Your task to perform on an android device: turn on improve location accuracy Image 0: 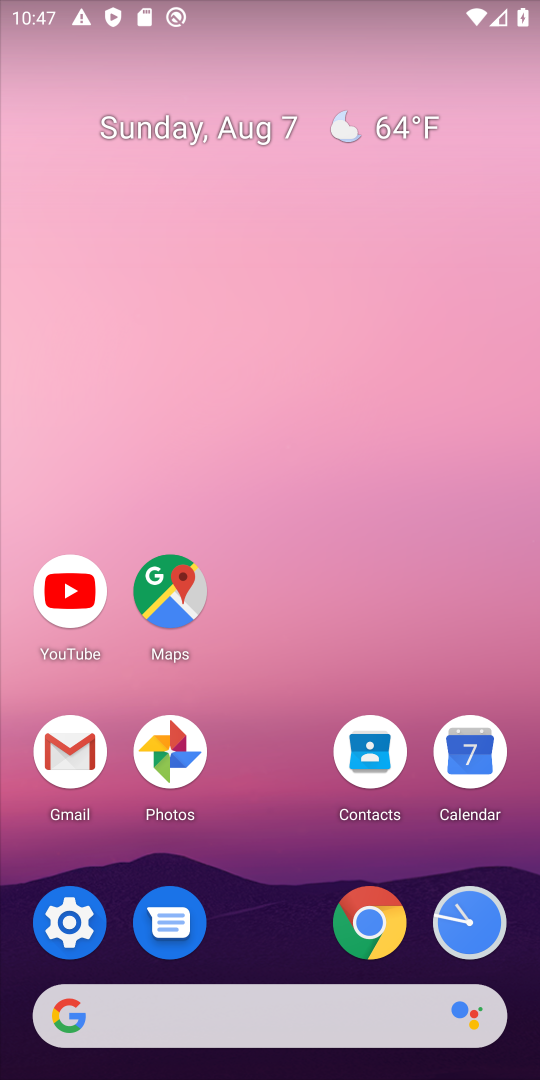
Step 0: click (65, 921)
Your task to perform on an android device: turn on improve location accuracy Image 1: 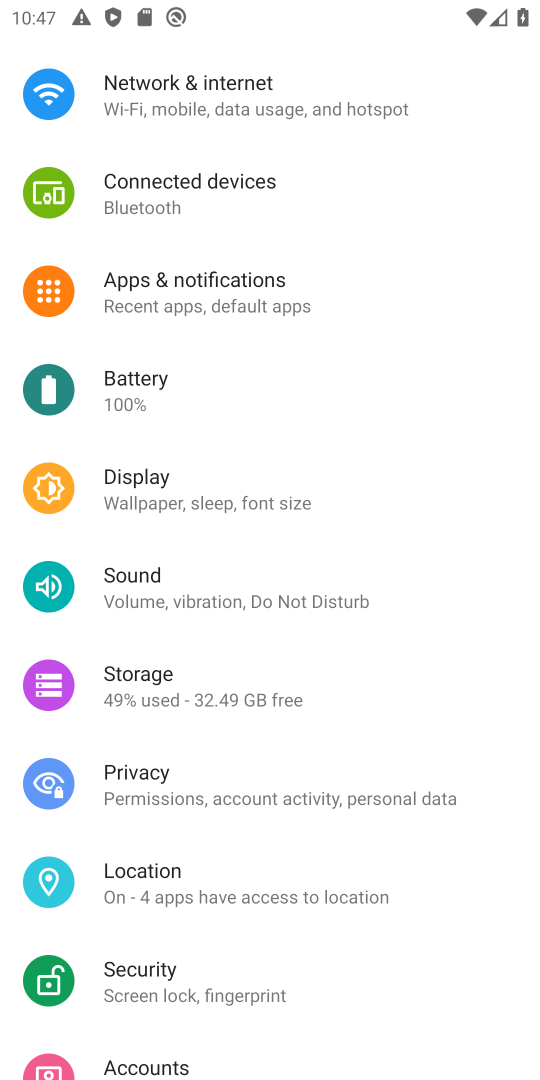
Step 1: click (141, 875)
Your task to perform on an android device: turn on improve location accuracy Image 2: 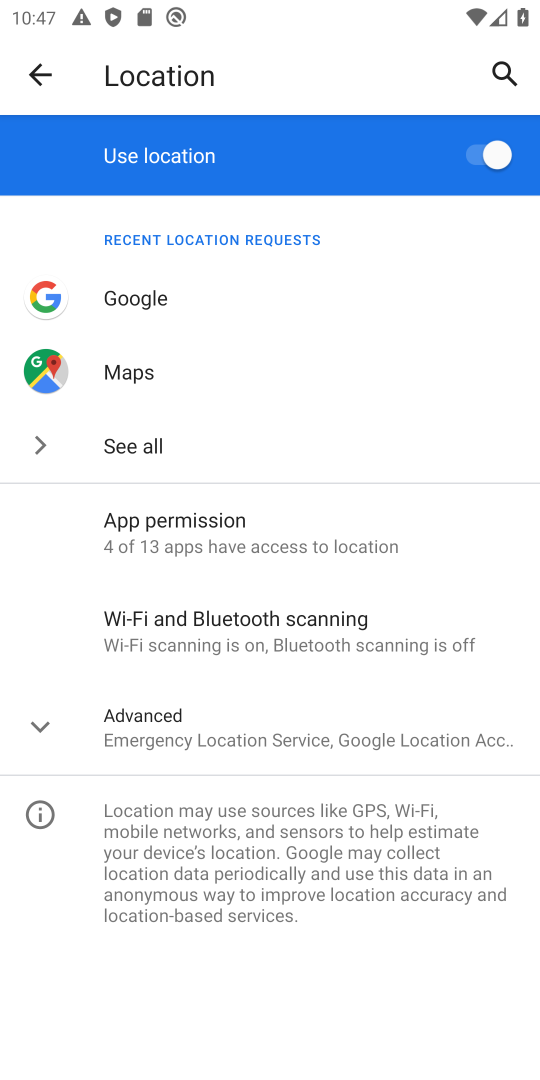
Step 2: click (44, 723)
Your task to perform on an android device: turn on improve location accuracy Image 3: 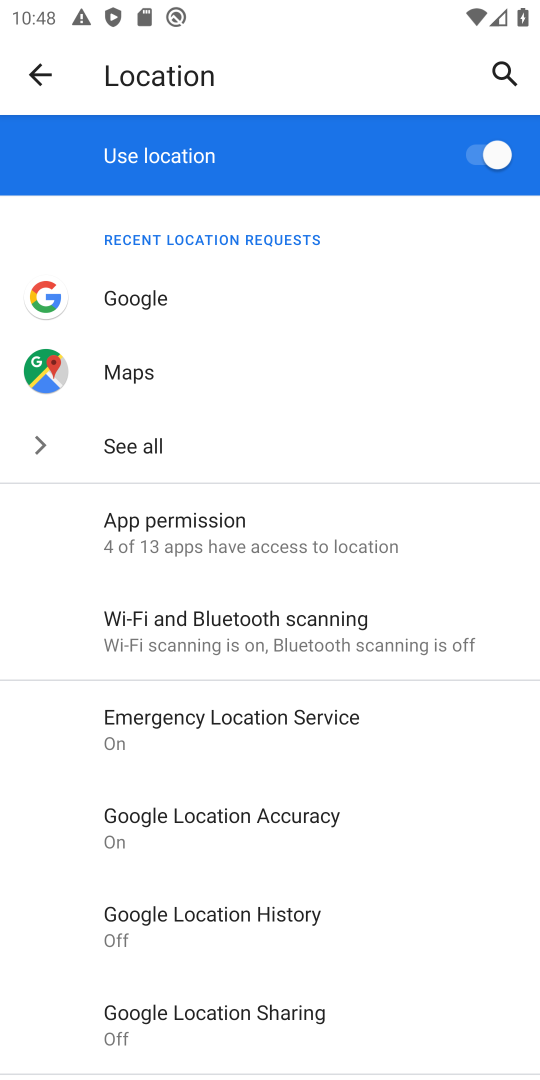
Step 3: click (241, 812)
Your task to perform on an android device: turn on improve location accuracy Image 4: 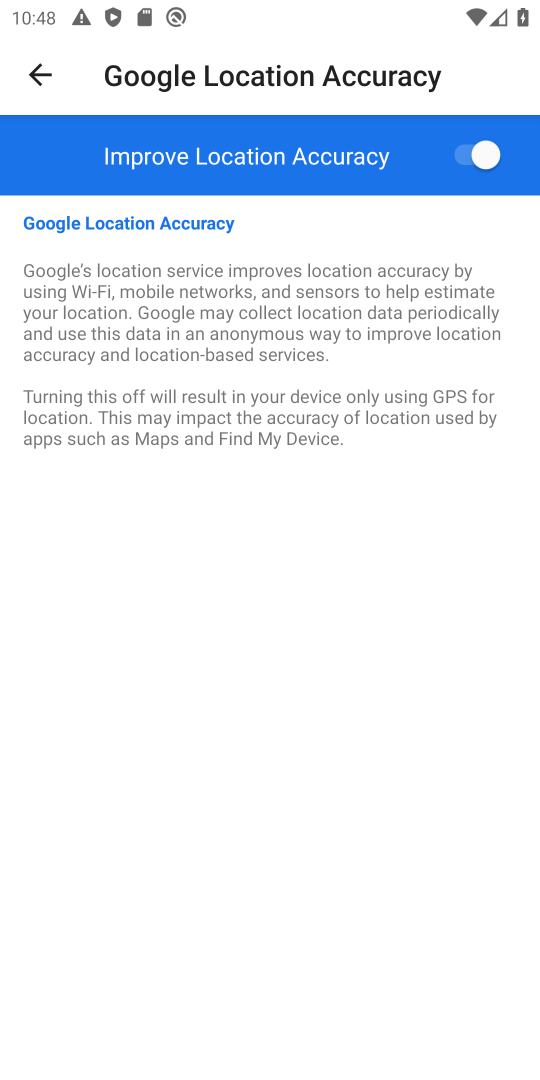
Step 4: task complete